Your task to perform on an android device: turn on location history Image 0: 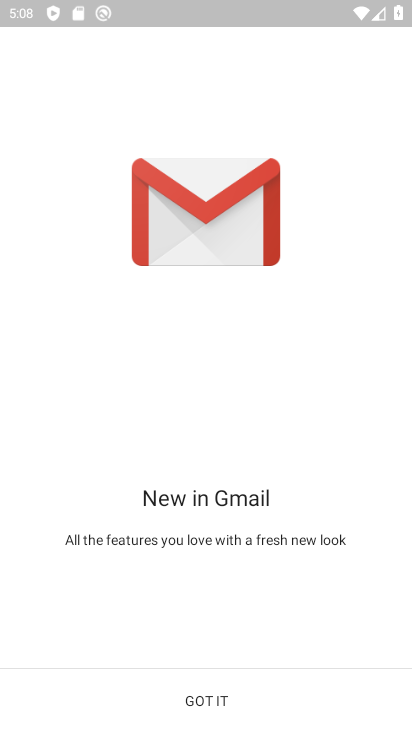
Step 0: press back button
Your task to perform on an android device: turn on location history Image 1: 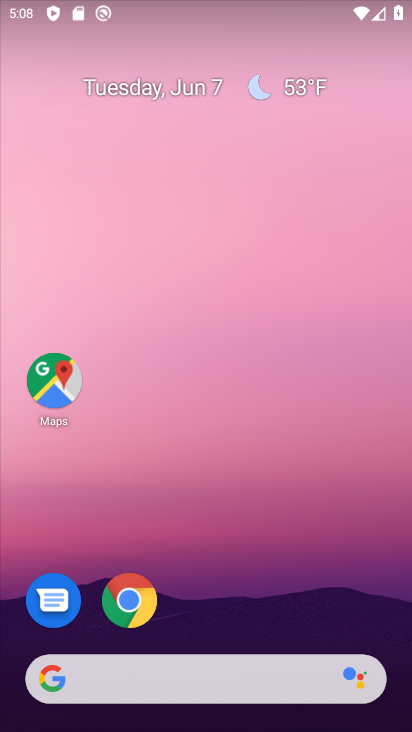
Step 1: drag from (230, 588) to (290, 46)
Your task to perform on an android device: turn on location history Image 2: 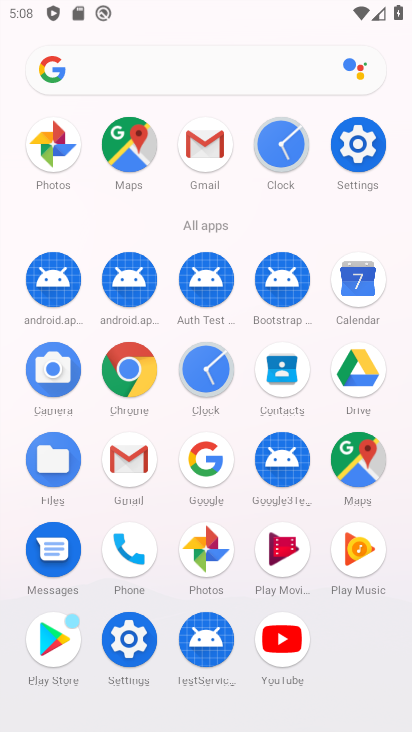
Step 2: click (352, 125)
Your task to perform on an android device: turn on location history Image 3: 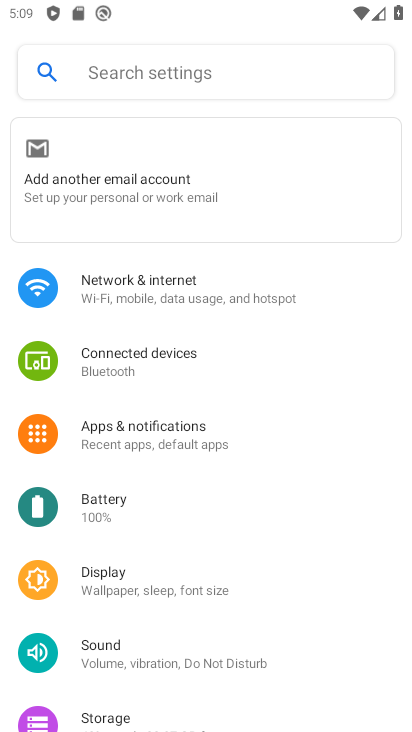
Step 3: drag from (163, 656) to (244, 263)
Your task to perform on an android device: turn on location history Image 4: 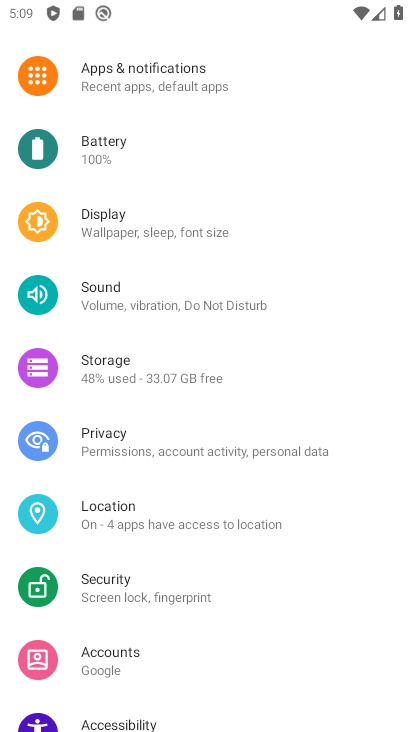
Step 4: click (130, 505)
Your task to perform on an android device: turn on location history Image 5: 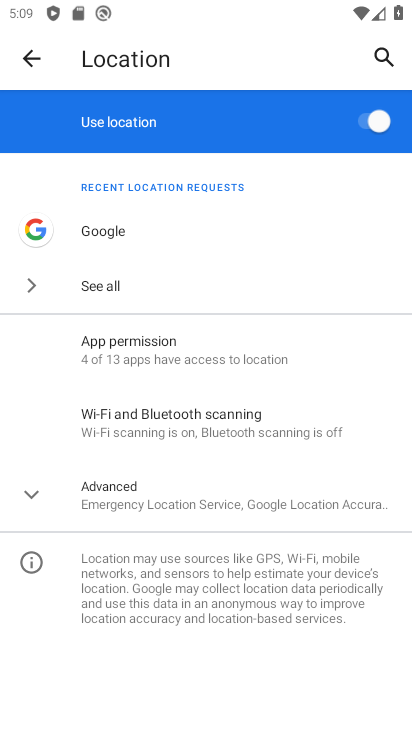
Step 5: click (142, 494)
Your task to perform on an android device: turn on location history Image 6: 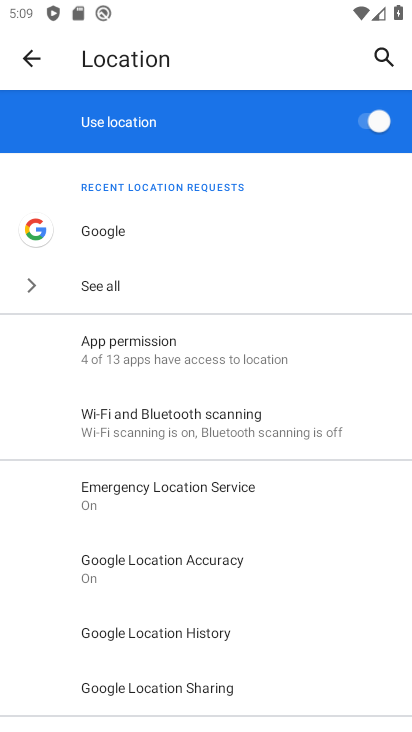
Step 6: click (207, 628)
Your task to perform on an android device: turn on location history Image 7: 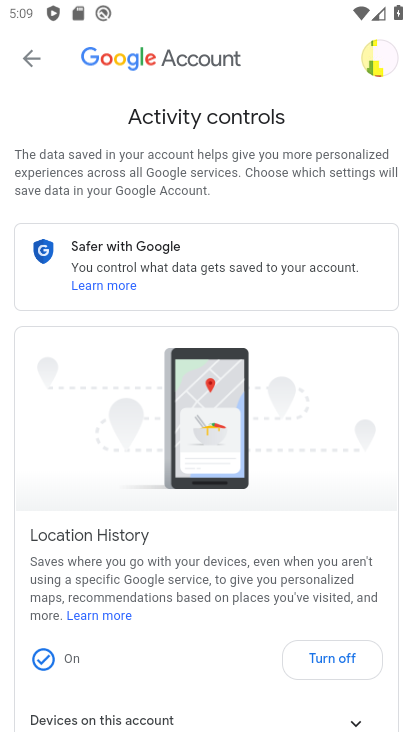
Step 7: task complete